Your task to perform on an android device: Search for seafood restaurants on Google Maps Image 0: 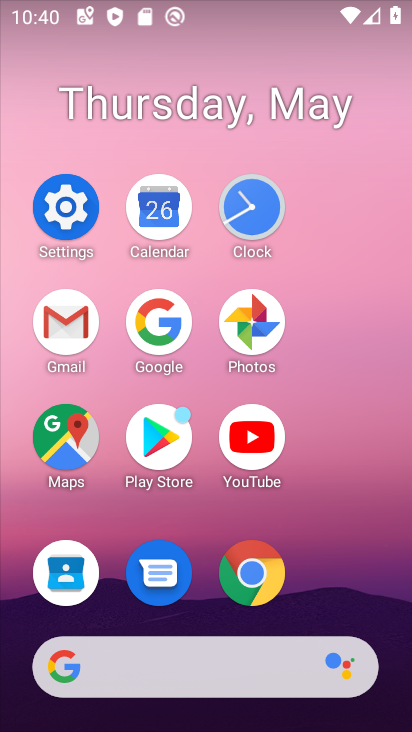
Step 0: click (53, 429)
Your task to perform on an android device: Search for seafood restaurants on Google Maps Image 1: 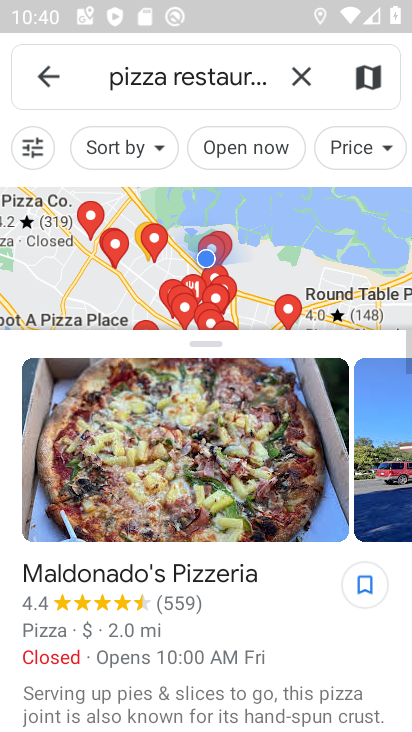
Step 1: click (297, 91)
Your task to perform on an android device: Search for seafood restaurants on Google Maps Image 2: 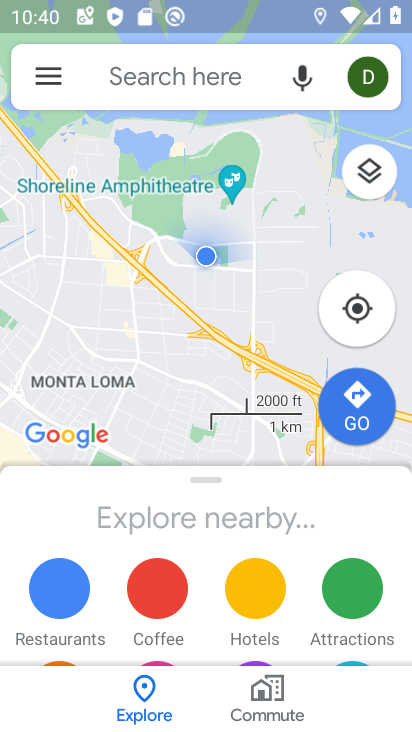
Step 2: click (186, 81)
Your task to perform on an android device: Search for seafood restaurants on Google Maps Image 3: 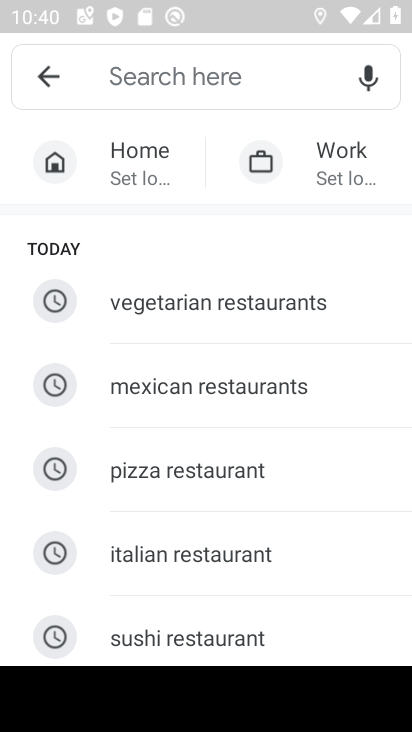
Step 3: drag from (272, 594) to (295, 243)
Your task to perform on an android device: Search for seafood restaurants on Google Maps Image 4: 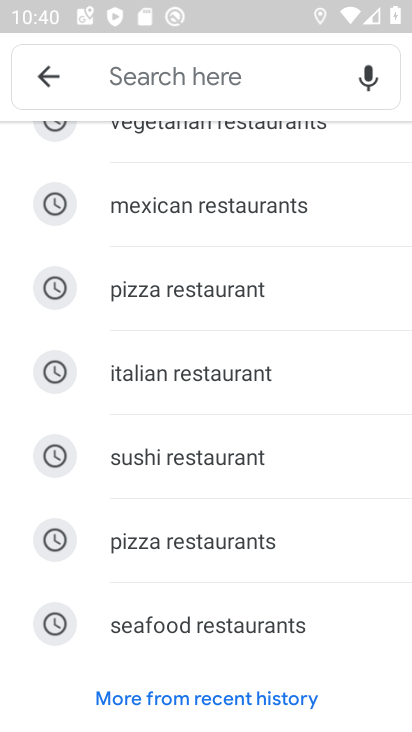
Step 4: click (243, 608)
Your task to perform on an android device: Search for seafood restaurants on Google Maps Image 5: 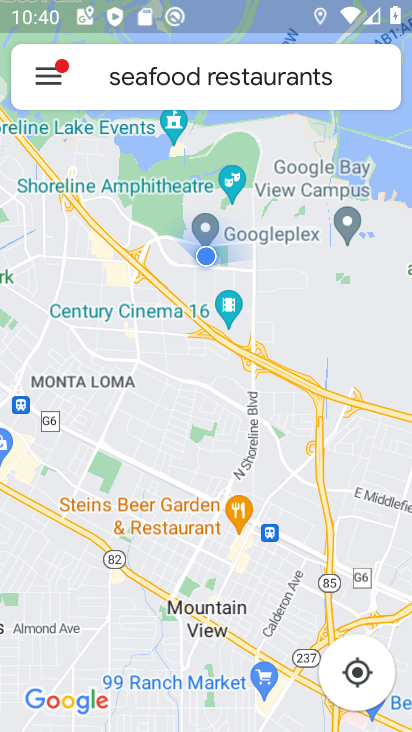
Step 5: task complete